Your task to perform on an android device: change timer sound Image 0: 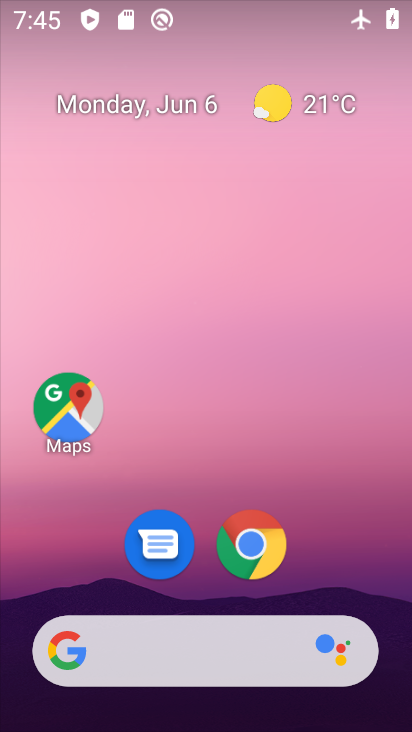
Step 0: click (310, 189)
Your task to perform on an android device: change timer sound Image 1: 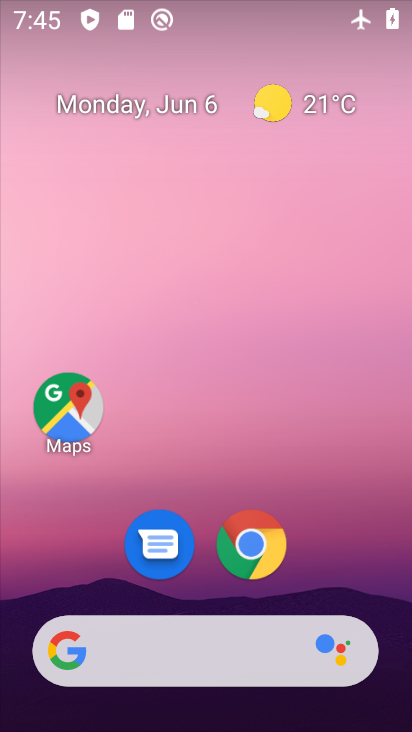
Step 1: drag from (208, 537) to (207, 201)
Your task to perform on an android device: change timer sound Image 2: 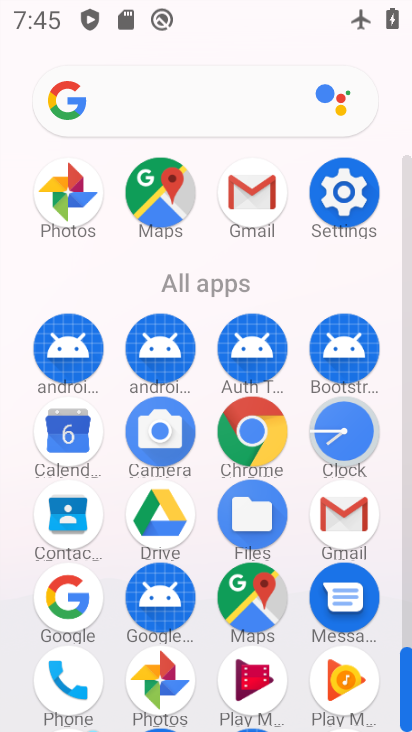
Step 2: click (360, 425)
Your task to perform on an android device: change timer sound Image 3: 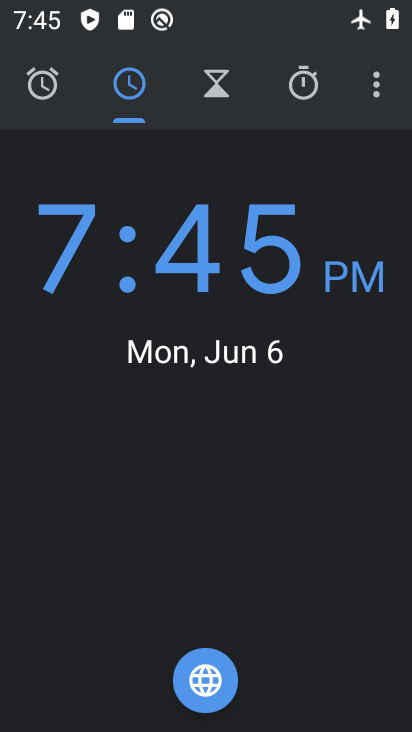
Step 3: click (376, 86)
Your task to perform on an android device: change timer sound Image 4: 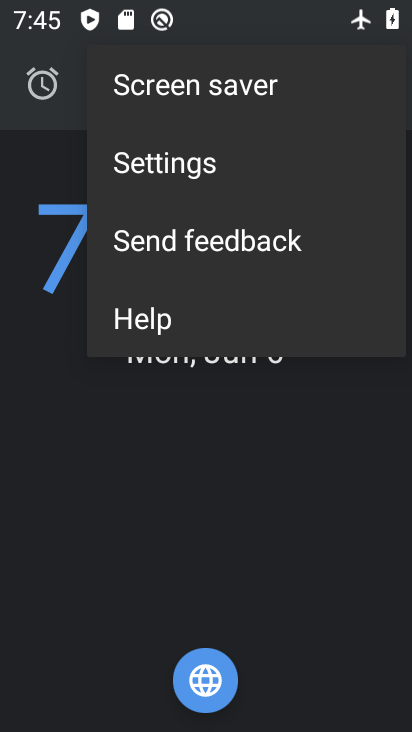
Step 4: click (224, 155)
Your task to perform on an android device: change timer sound Image 5: 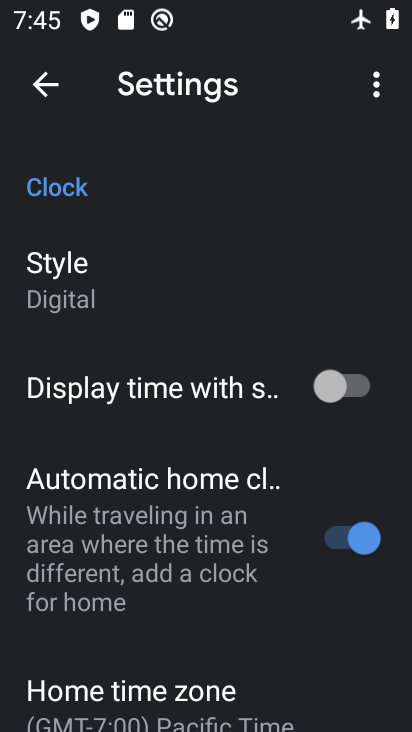
Step 5: drag from (164, 645) to (229, 223)
Your task to perform on an android device: change timer sound Image 6: 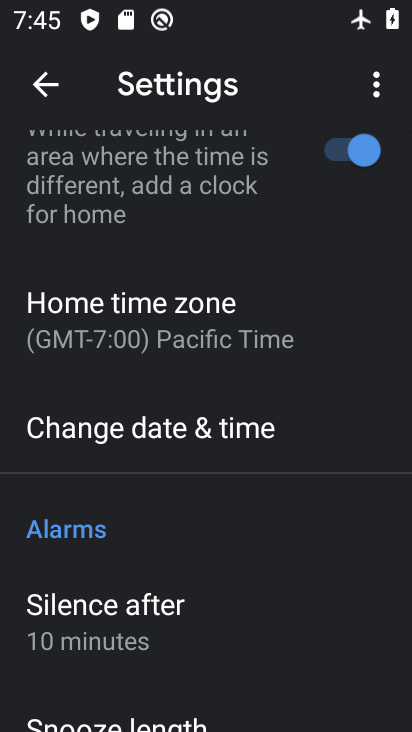
Step 6: drag from (199, 624) to (234, 244)
Your task to perform on an android device: change timer sound Image 7: 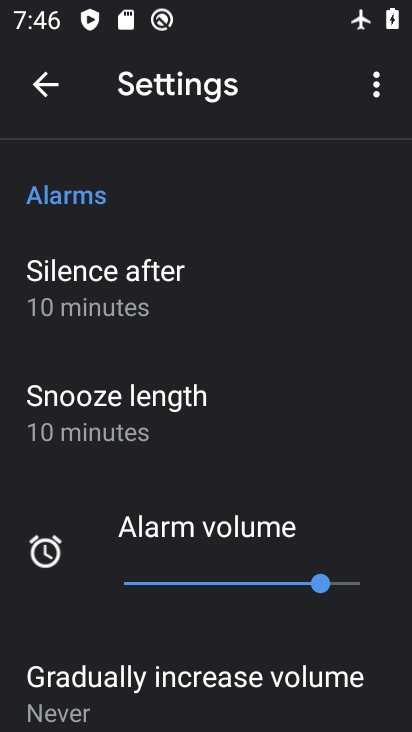
Step 7: drag from (169, 645) to (210, 239)
Your task to perform on an android device: change timer sound Image 8: 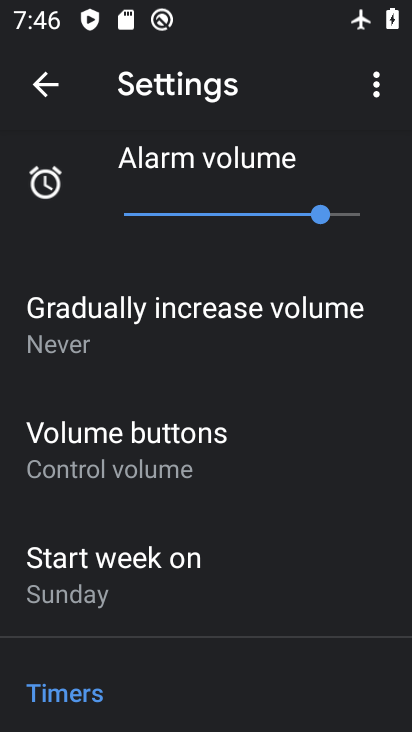
Step 8: drag from (188, 620) to (219, 318)
Your task to perform on an android device: change timer sound Image 9: 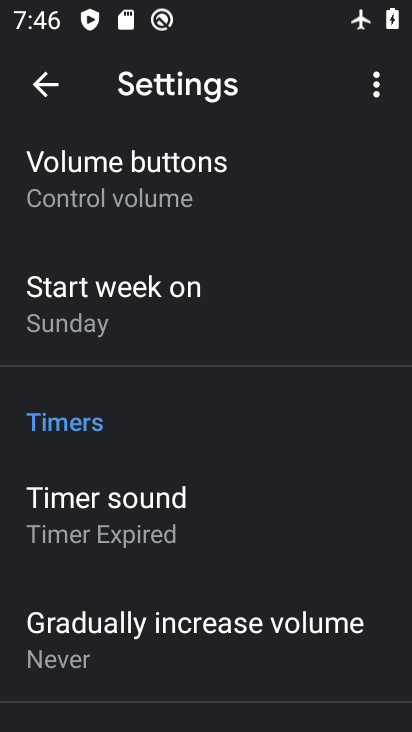
Step 9: click (147, 517)
Your task to perform on an android device: change timer sound Image 10: 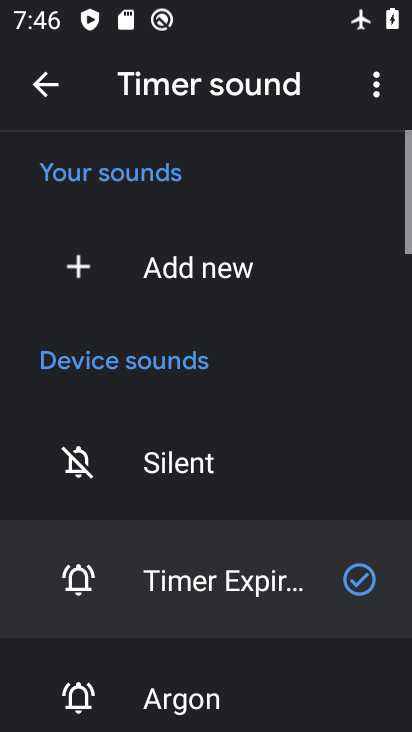
Step 10: drag from (180, 644) to (207, 331)
Your task to perform on an android device: change timer sound Image 11: 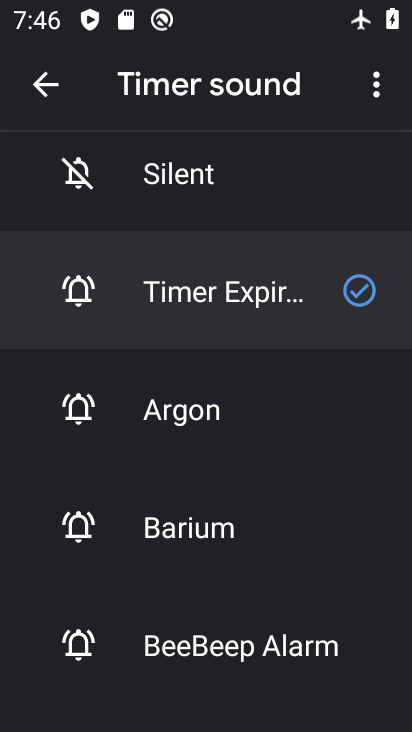
Step 11: click (185, 628)
Your task to perform on an android device: change timer sound Image 12: 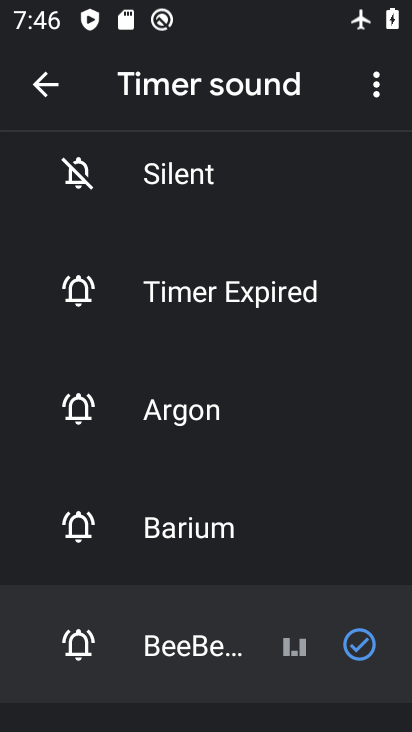
Step 12: task complete